Your task to perform on an android device: clear history in the chrome app Image 0: 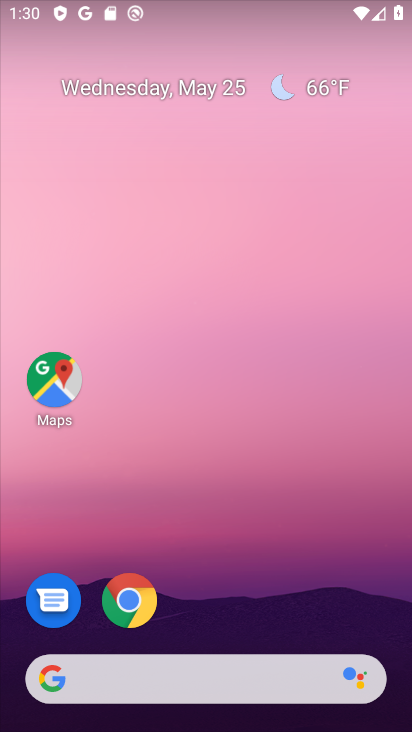
Step 0: click (121, 608)
Your task to perform on an android device: clear history in the chrome app Image 1: 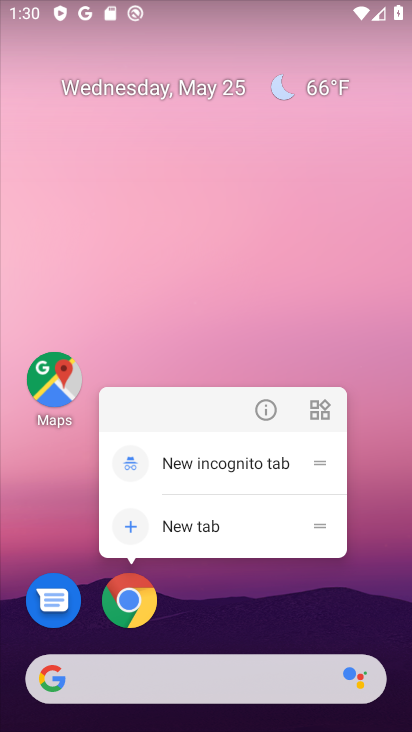
Step 1: click (136, 610)
Your task to perform on an android device: clear history in the chrome app Image 2: 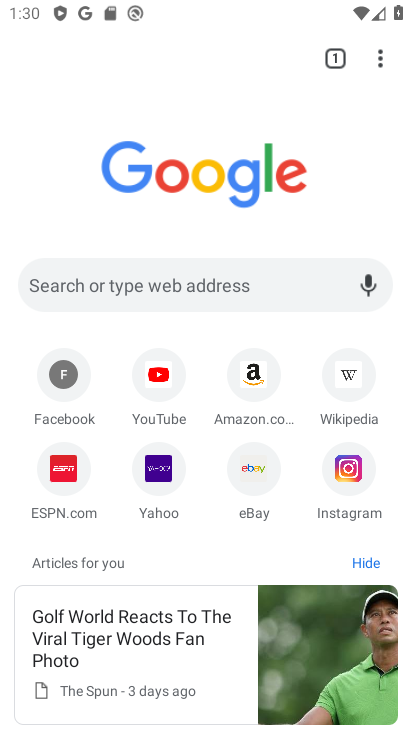
Step 2: drag from (377, 71) to (253, 345)
Your task to perform on an android device: clear history in the chrome app Image 3: 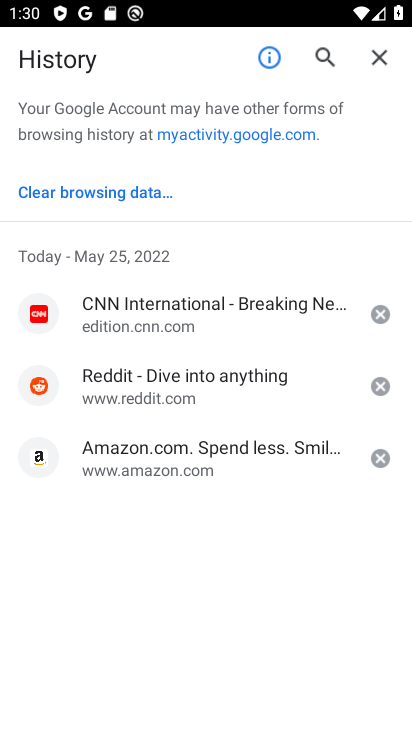
Step 3: click (85, 188)
Your task to perform on an android device: clear history in the chrome app Image 4: 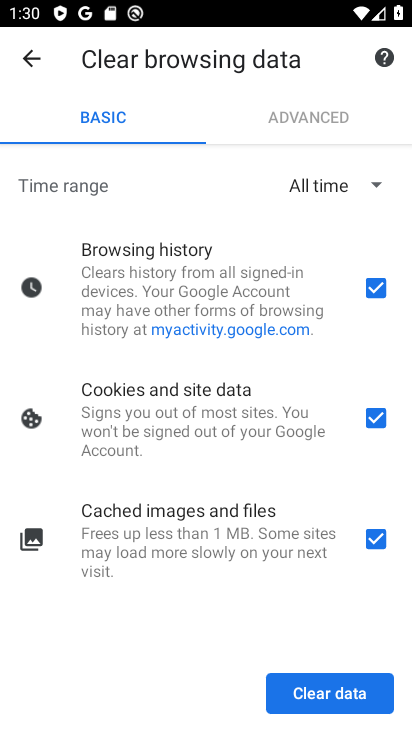
Step 4: click (351, 700)
Your task to perform on an android device: clear history in the chrome app Image 5: 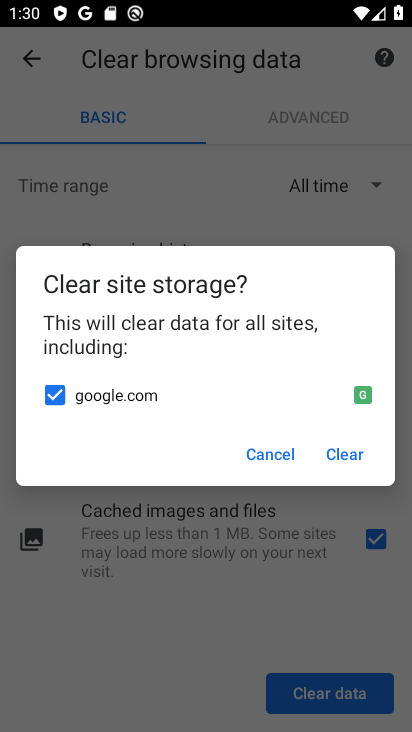
Step 5: click (356, 463)
Your task to perform on an android device: clear history in the chrome app Image 6: 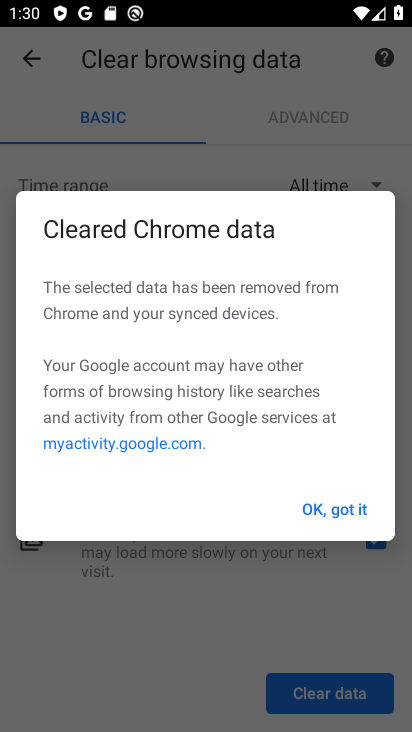
Step 6: click (368, 511)
Your task to perform on an android device: clear history in the chrome app Image 7: 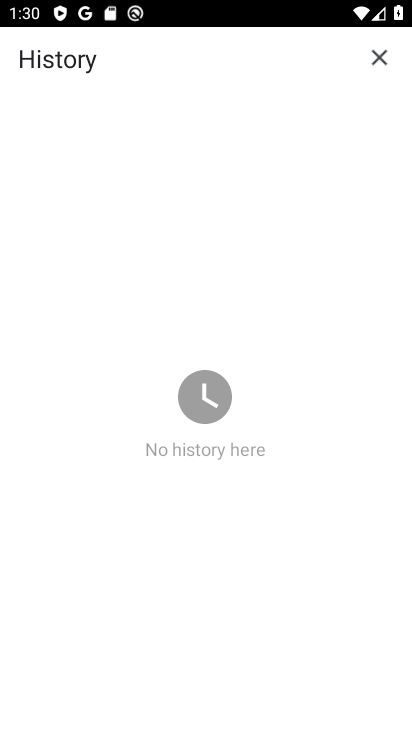
Step 7: task complete